Your task to perform on an android device: star an email in the gmail app Image 0: 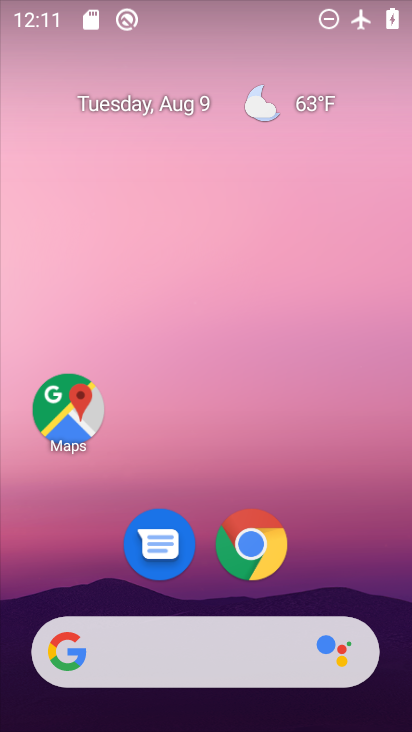
Step 0: drag from (208, 629) to (190, 158)
Your task to perform on an android device: star an email in the gmail app Image 1: 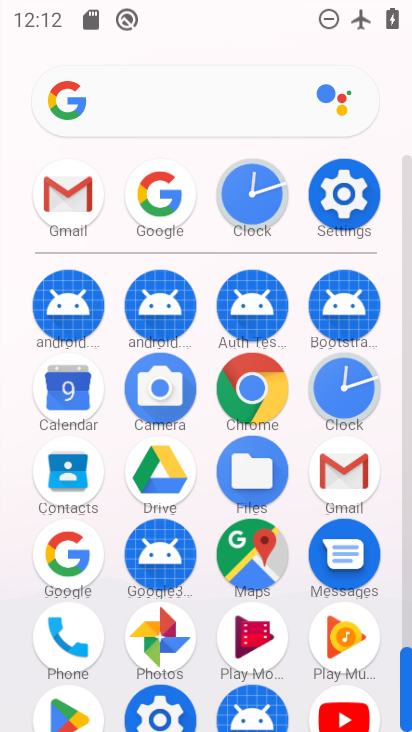
Step 1: click (69, 192)
Your task to perform on an android device: star an email in the gmail app Image 2: 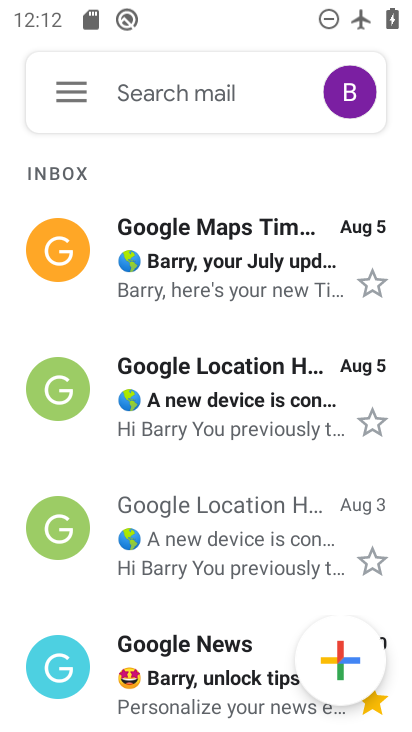
Step 2: click (373, 284)
Your task to perform on an android device: star an email in the gmail app Image 3: 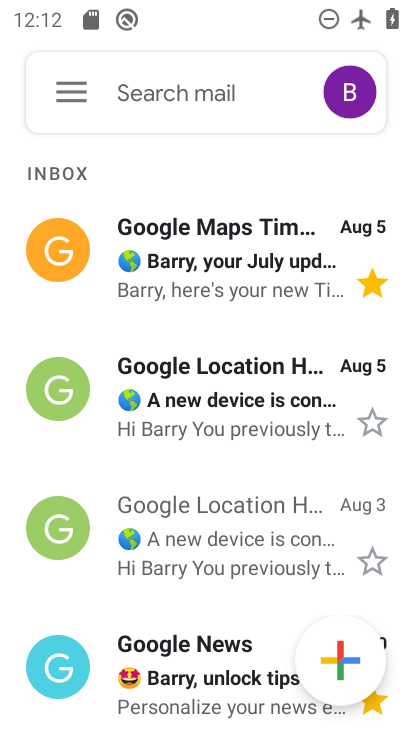
Step 3: task complete